Your task to perform on an android device: check google app version Image 0: 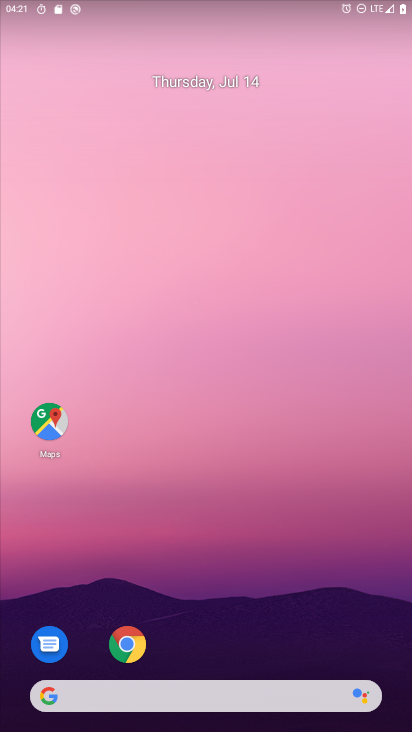
Step 0: drag from (268, 447) to (314, 38)
Your task to perform on an android device: check google app version Image 1: 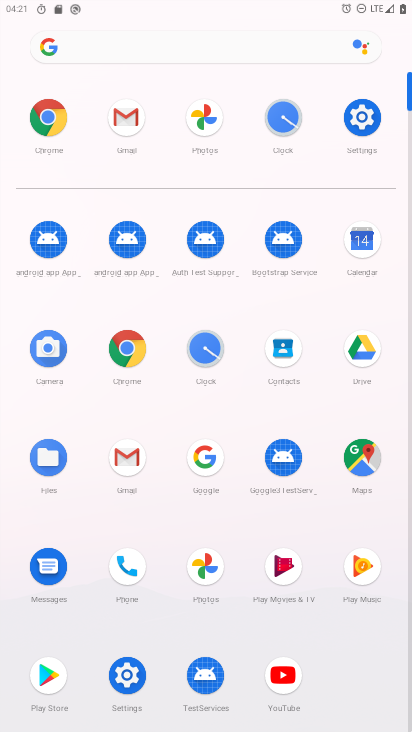
Step 1: click (209, 459)
Your task to perform on an android device: check google app version Image 2: 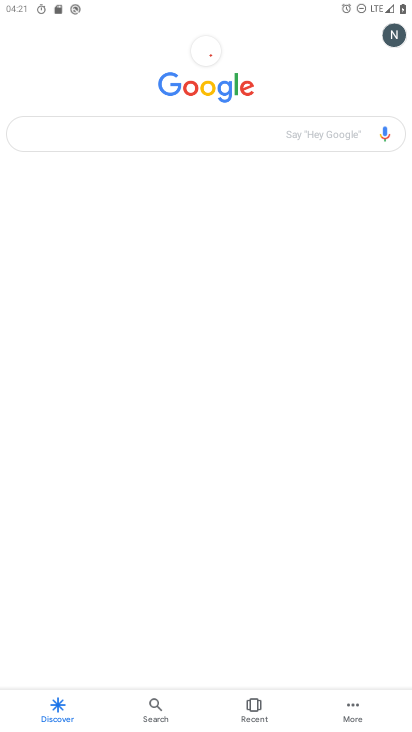
Step 2: press home button
Your task to perform on an android device: check google app version Image 3: 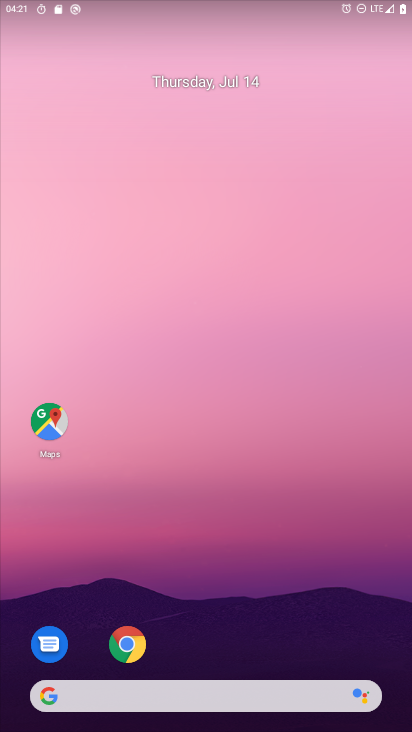
Step 3: drag from (216, 616) to (191, 87)
Your task to perform on an android device: check google app version Image 4: 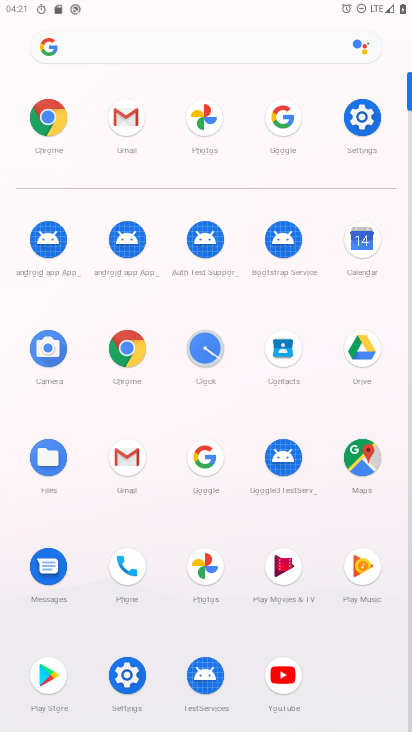
Step 4: click (202, 452)
Your task to perform on an android device: check google app version Image 5: 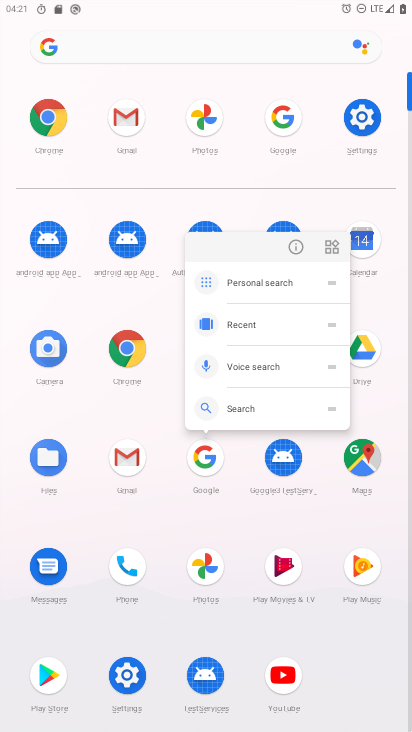
Step 5: click (296, 241)
Your task to perform on an android device: check google app version Image 6: 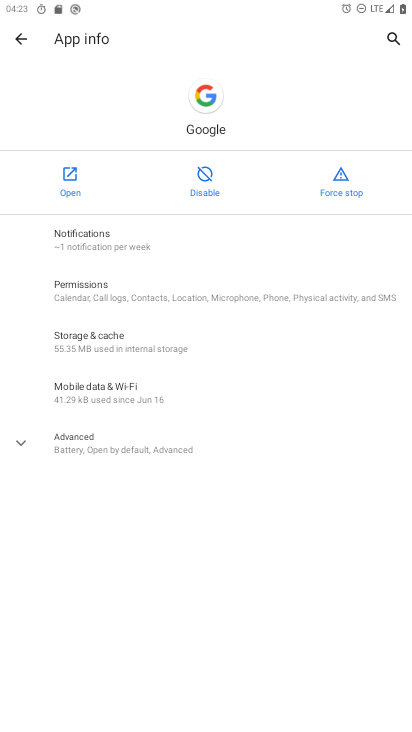
Step 6: click (157, 438)
Your task to perform on an android device: check google app version Image 7: 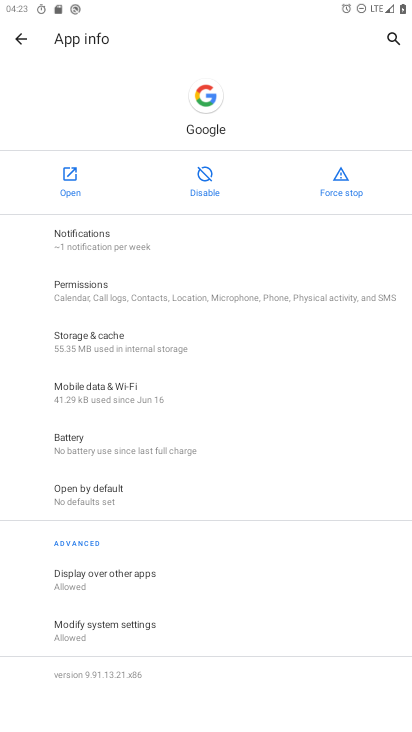
Step 7: task complete